Your task to perform on an android device: Is it going to rain tomorrow? Image 0: 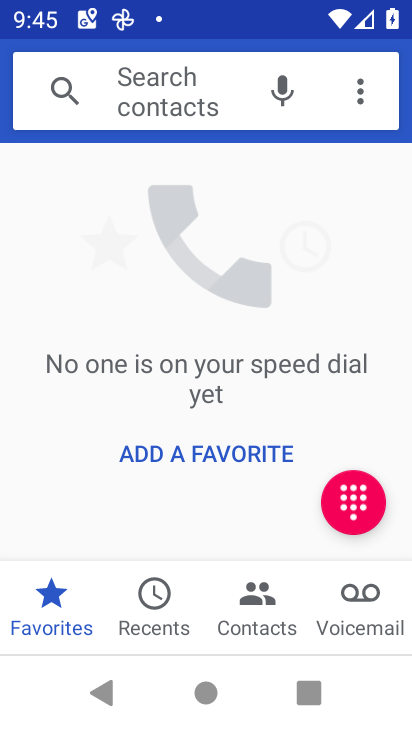
Step 0: press home button
Your task to perform on an android device: Is it going to rain tomorrow? Image 1: 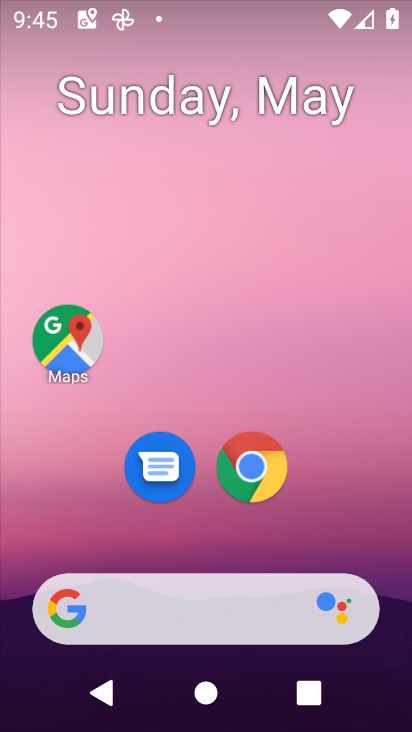
Step 1: drag from (373, 483) to (361, 95)
Your task to perform on an android device: Is it going to rain tomorrow? Image 2: 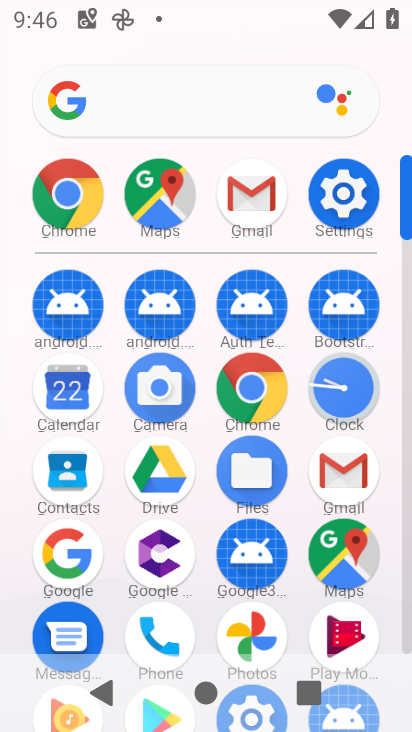
Step 2: click (244, 392)
Your task to perform on an android device: Is it going to rain tomorrow? Image 3: 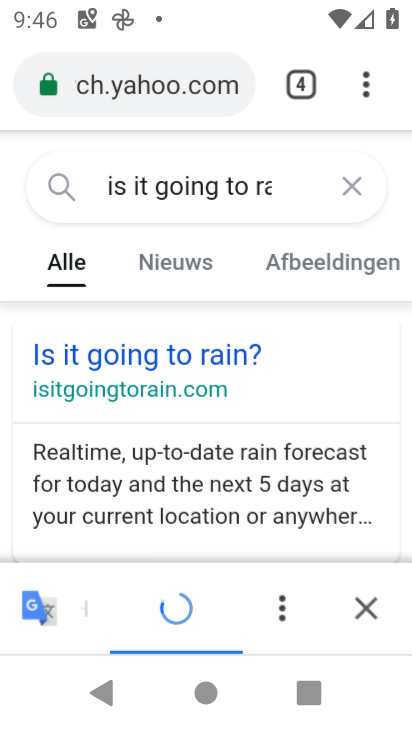
Step 3: click (174, 94)
Your task to perform on an android device: Is it going to rain tomorrow? Image 4: 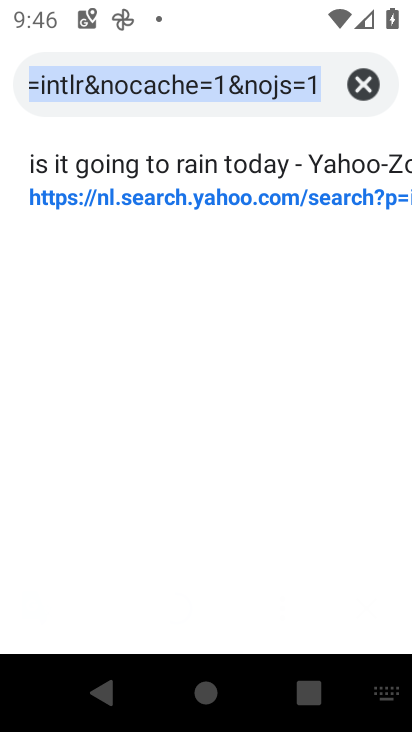
Step 4: click (361, 93)
Your task to perform on an android device: Is it going to rain tomorrow? Image 5: 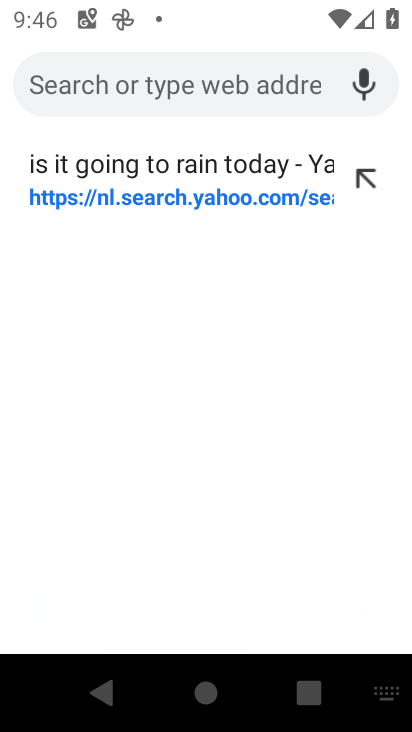
Step 5: type "is it going to rain tomorrow"
Your task to perform on an android device: Is it going to rain tomorrow? Image 6: 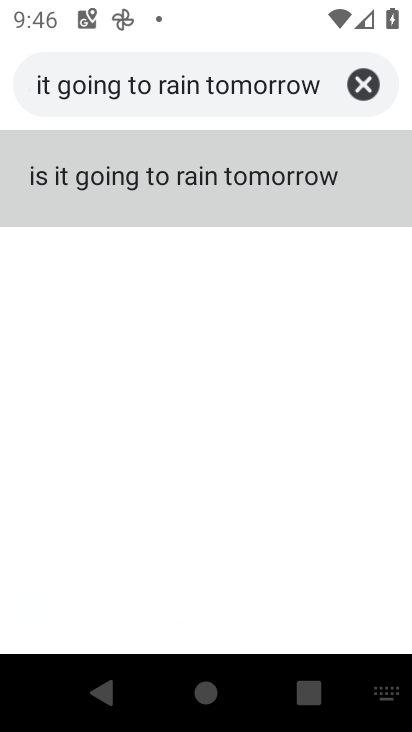
Step 6: click (230, 193)
Your task to perform on an android device: Is it going to rain tomorrow? Image 7: 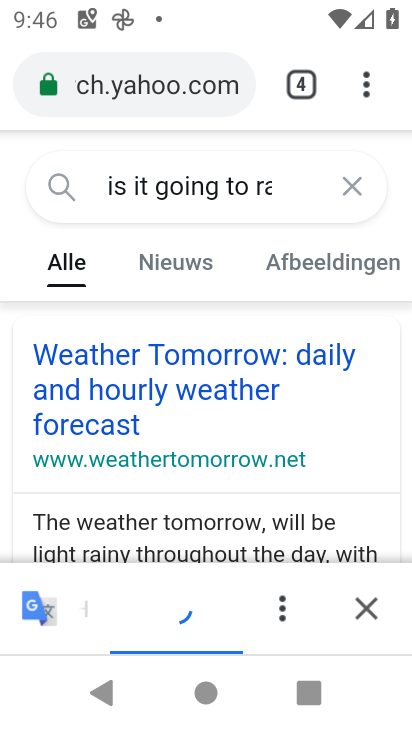
Step 7: task complete